Your task to perform on an android device: Open Chrome and go to the settings page Image 0: 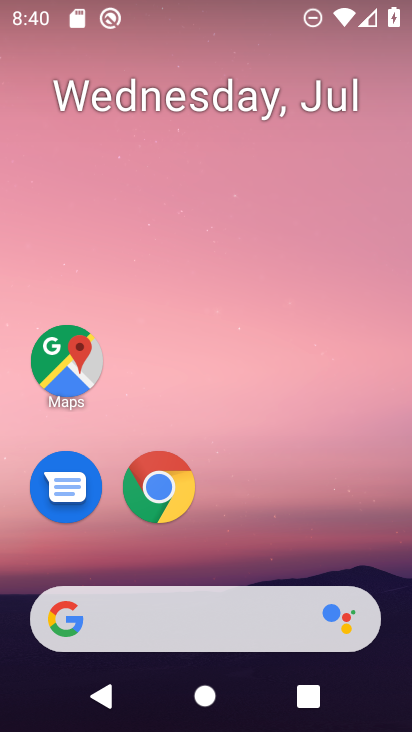
Step 0: drag from (364, 525) to (355, 143)
Your task to perform on an android device: Open Chrome and go to the settings page Image 1: 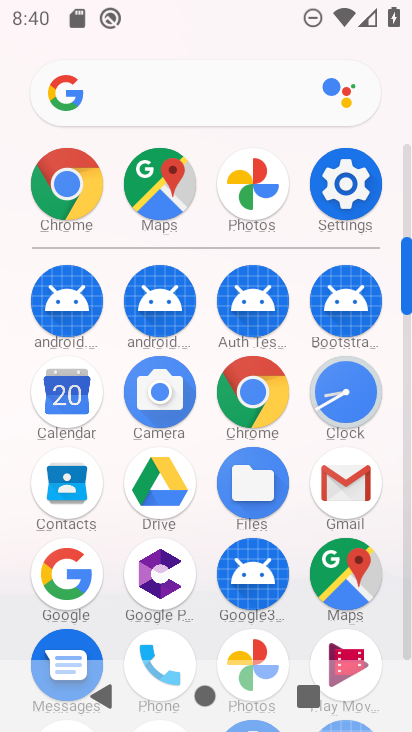
Step 1: click (268, 386)
Your task to perform on an android device: Open Chrome and go to the settings page Image 2: 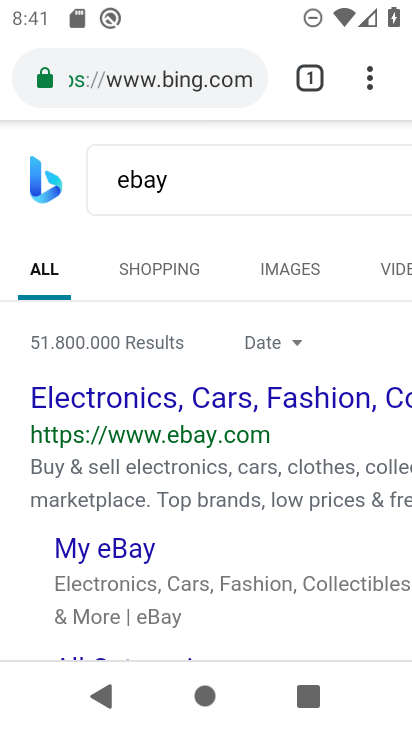
Step 2: click (368, 85)
Your task to perform on an android device: Open Chrome and go to the settings page Image 3: 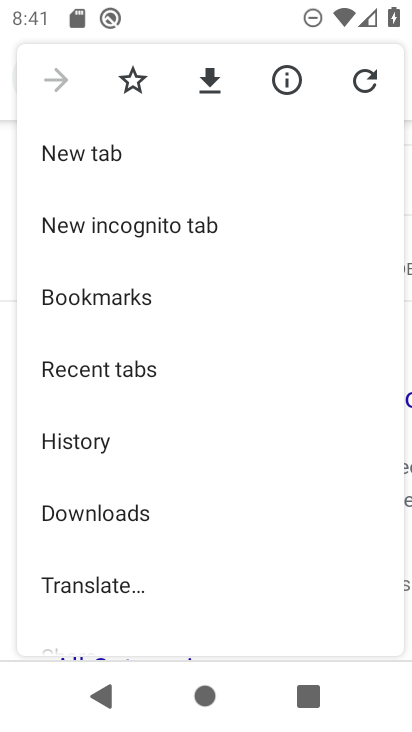
Step 3: drag from (313, 370) to (329, 296)
Your task to perform on an android device: Open Chrome and go to the settings page Image 4: 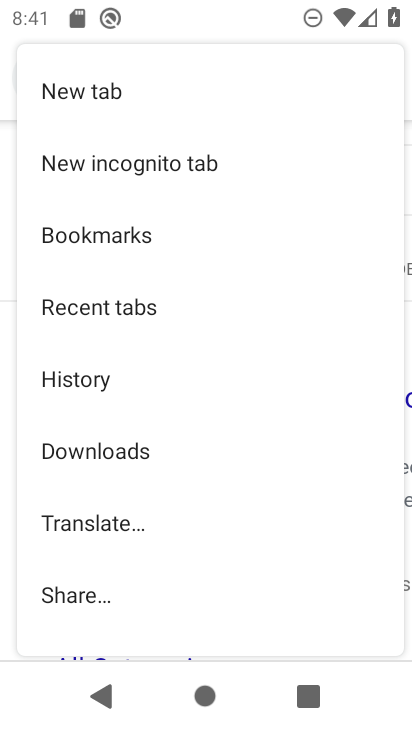
Step 4: drag from (318, 436) to (325, 349)
Your task to perform on an android device: Open Chrome and go to the settings page Image 5: 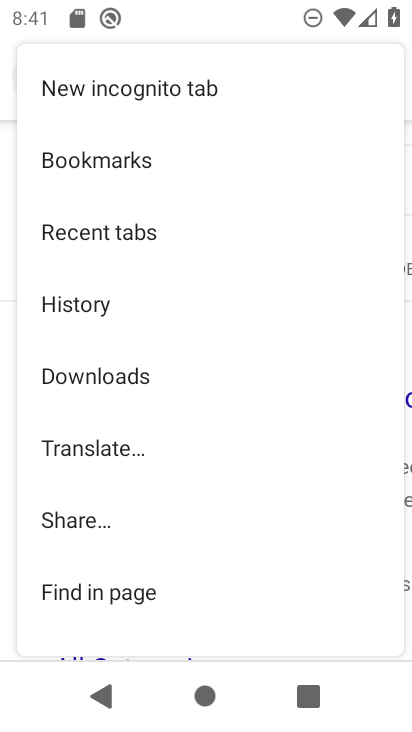
Step 5: drag from (322, 468) to (333, 370)
Your task to perform on an android device: Open Chrome and go to the settings page Image 6: 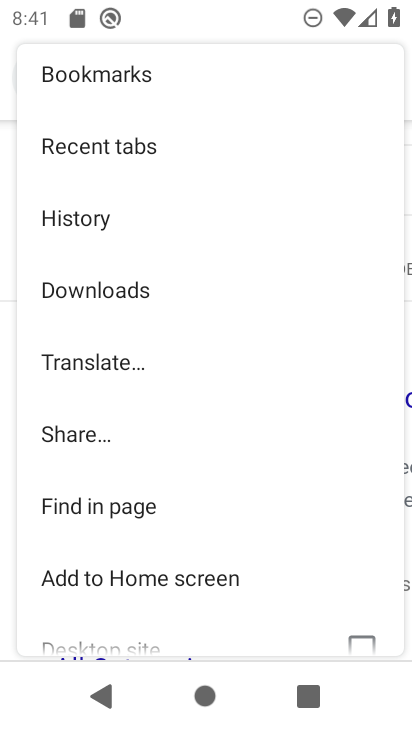
Step 6: drag from (319, 499) to (332, 385)
Your task to perform on an android device: Open Chrome and go to the settings page Image 7: 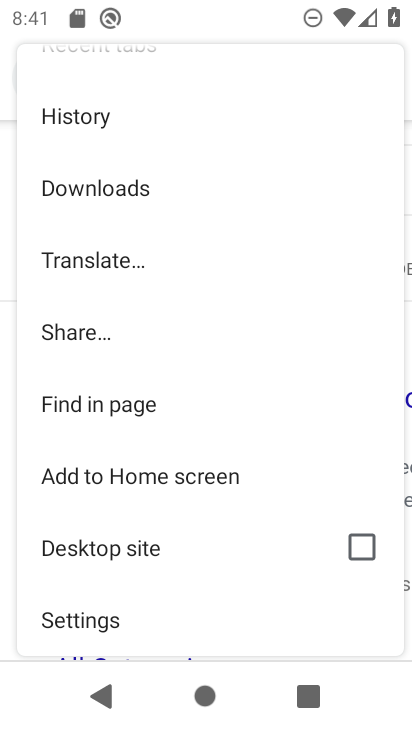
Step 7: drag from (316, 487) to (332, 346)
Your task to perform on an android device: Open Chrome and go to the settings page Image 8: 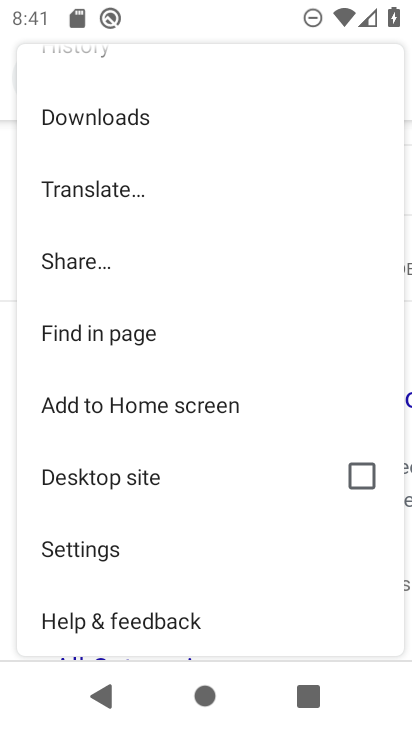
Step 8: click (161, 552)
Your task to perform on an android device: Open Chrome and go to the settings page Image 9: 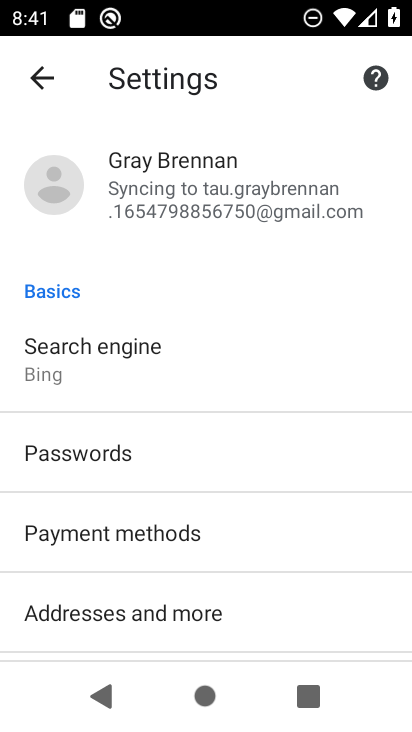
Step 9: task complete